Your task to perform on an android device: open a bookmark in the chrome app Image 0: 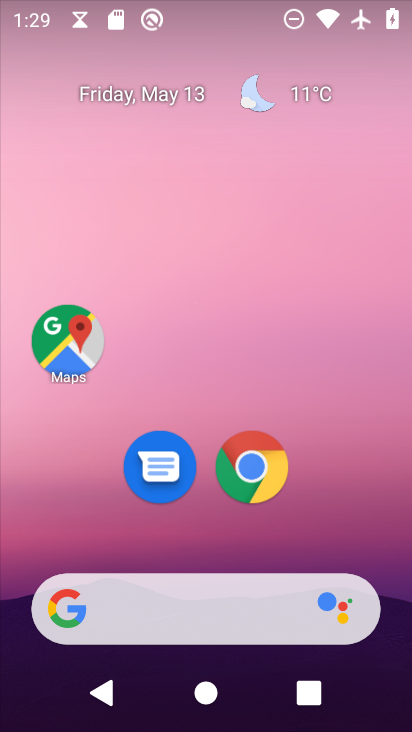
Step 0: click (239, 478)
Your task to perform on an android device: open a bookmark in the chrome app Image 1: 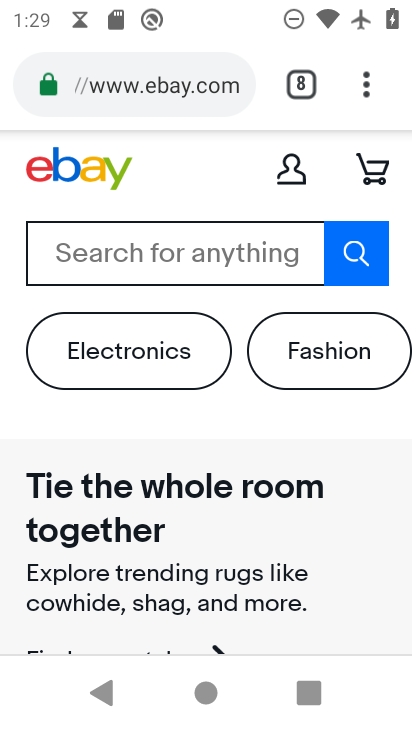
Step 1: click (369, 93)
Your task to perform on an android device: open a bookmark in the chrome app Image 2: 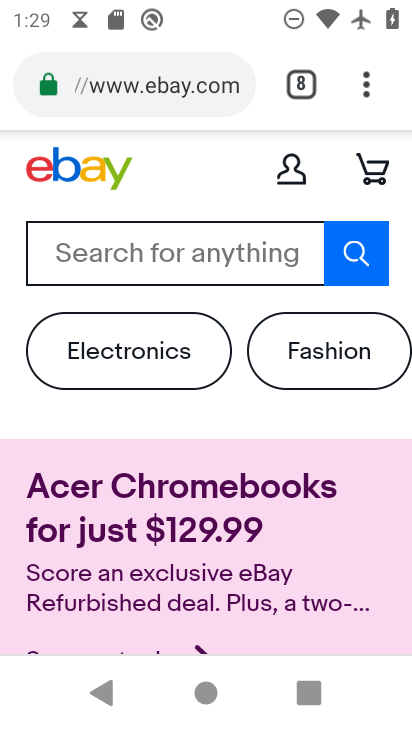
Step 2: click (366, 91)
Your task to perform on an android device: open a bookmark in the chrome app Image 3: 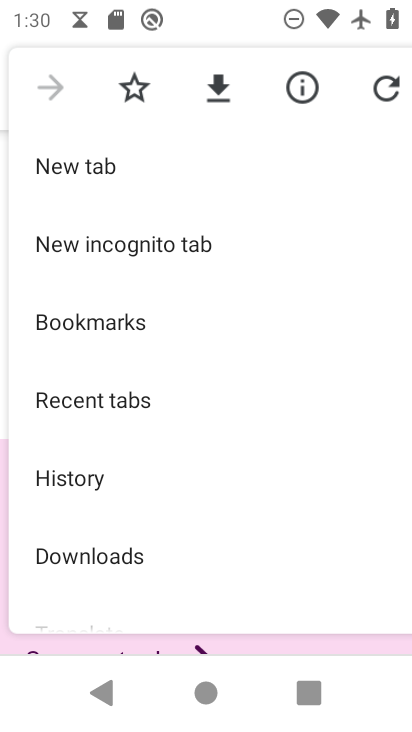
Step 3: click (155, 328)
Your task to perform on an android device: open a bookmark in the chrome app Image 4: 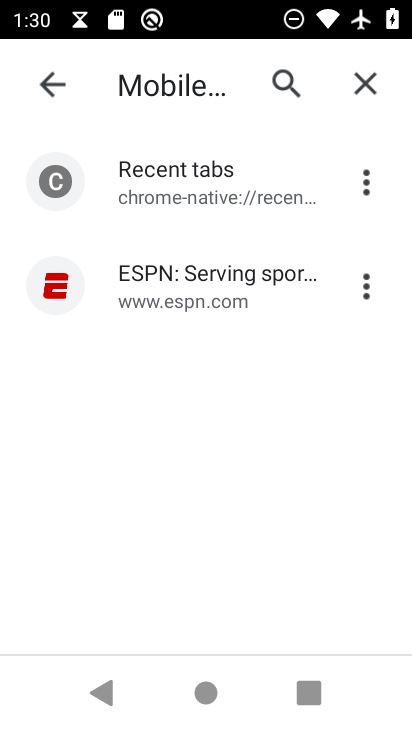
Step 4: click (161, 268)
Your task to perform on an android device: open a bookmark in the chrome app Image 5: 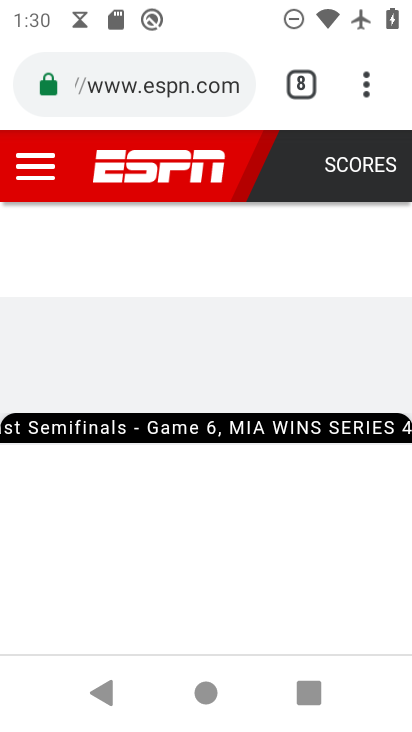
Step 5: task complete